Your task to perform on an android device: Go to sound settings Image 0: 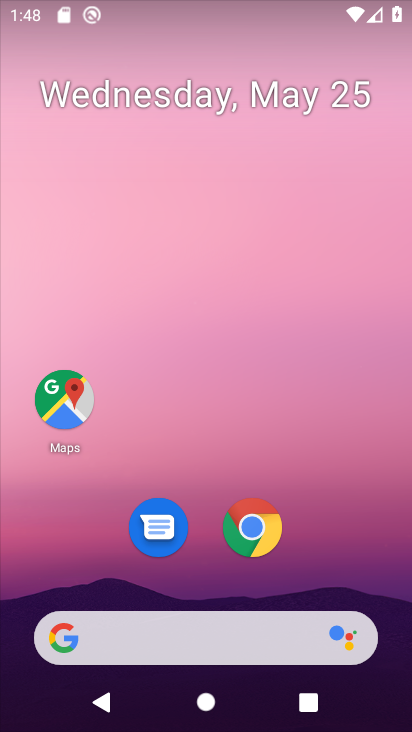
Step 0: drag from (139, 530) to (204, 149)
Your task to perform on an android device: Go to sound settings Image 1: 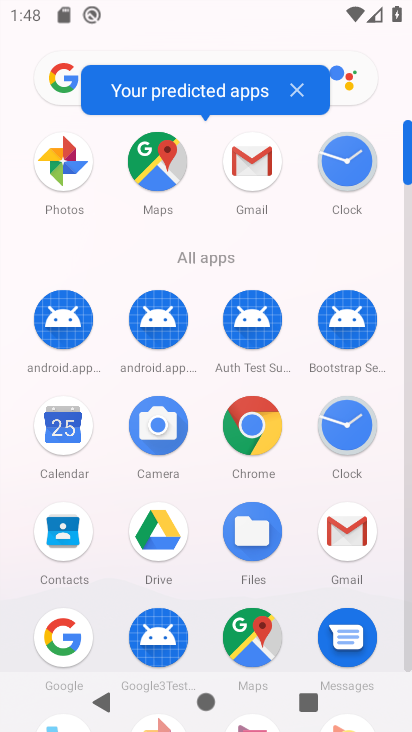
Step 1: drag from (167, 654) to (257, 315)
Your task to perform on an android device: Go to sound settings Image 2: 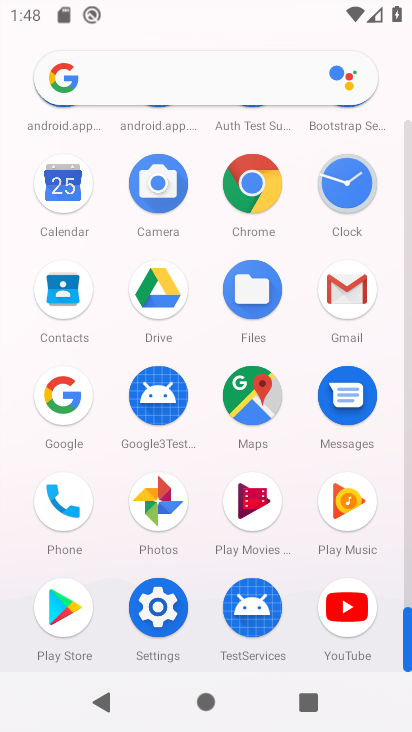
Step 2: click (151, 616)
Your task to perform on an android device: Go to sound settings Image 3: 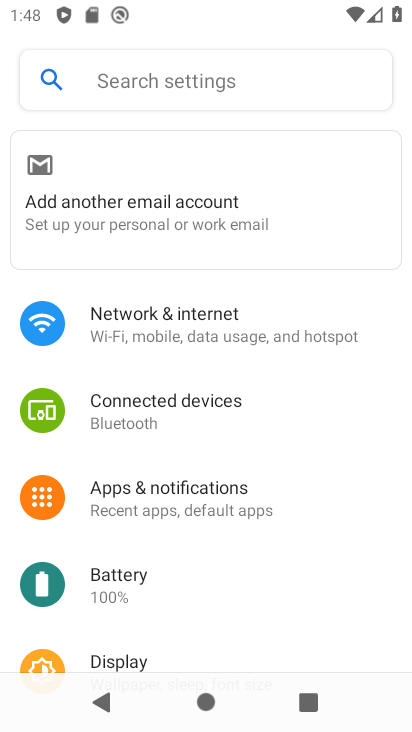
Step 3: drag from (210, 515) to (294, 181)
Your task to perform on an android device: Go to sound settings Image 4: 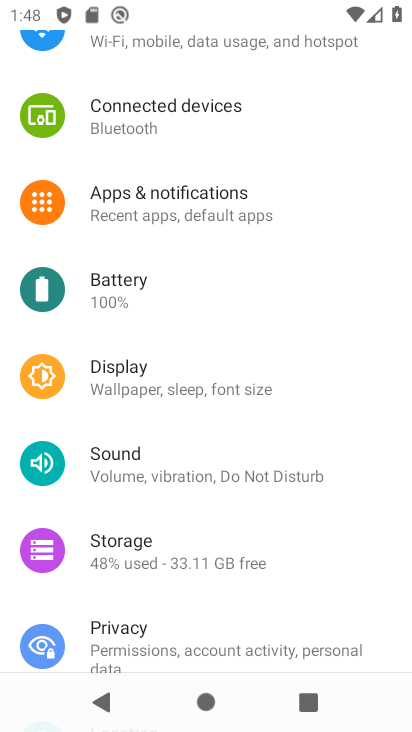
Step 4: click (221, 479)
Your task to perform on an android device: Go to sound settings Image 5: 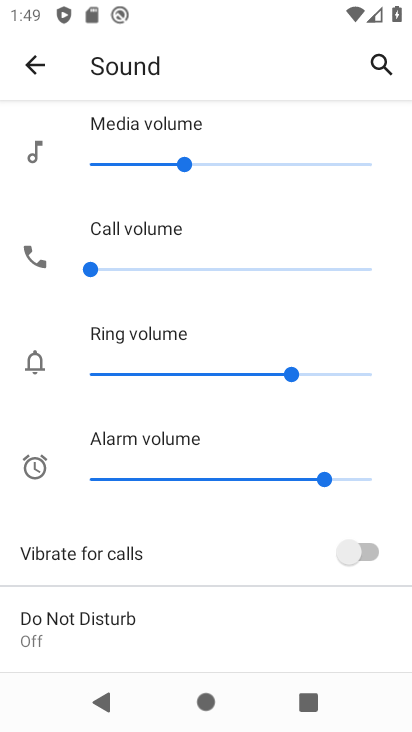
Step 5: task complete